Your task to perform on an android device: delete location history Image 0: 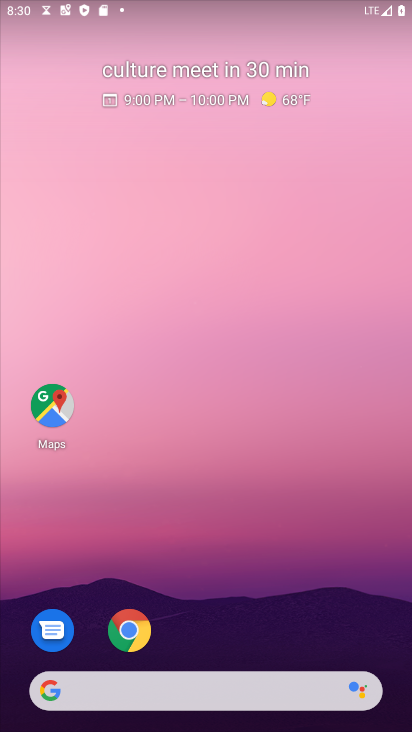
Step 0: click (52, 406)
Your task to perform on an android device: delete location history Image 1: 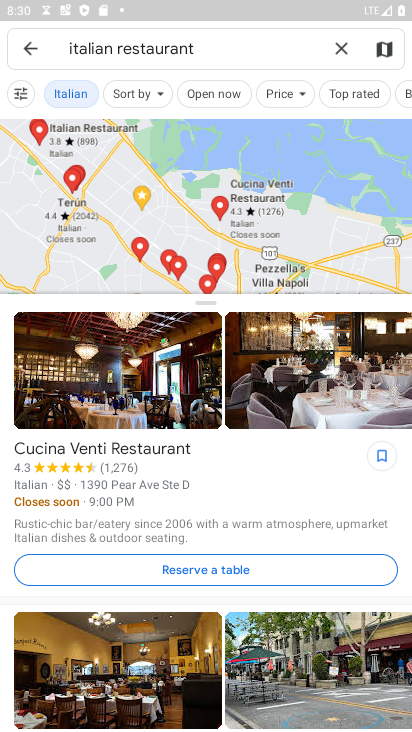
Step 1: click (338, 53)
Your task to perform on an android device: delete location history Image 2: 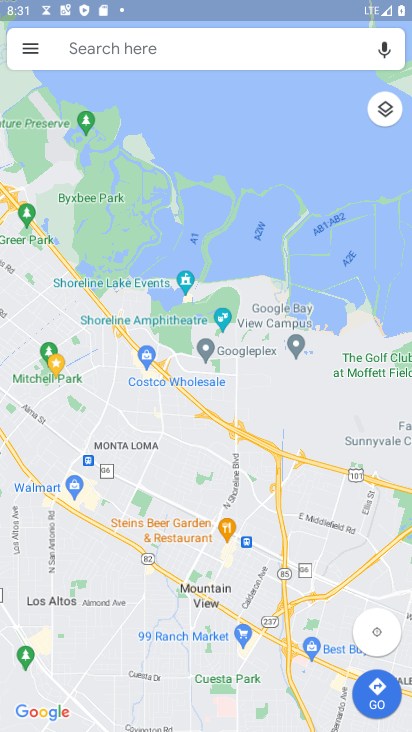
Step 2: click (29, 45)
Your task to perform on an android device: delete location history Image 3: 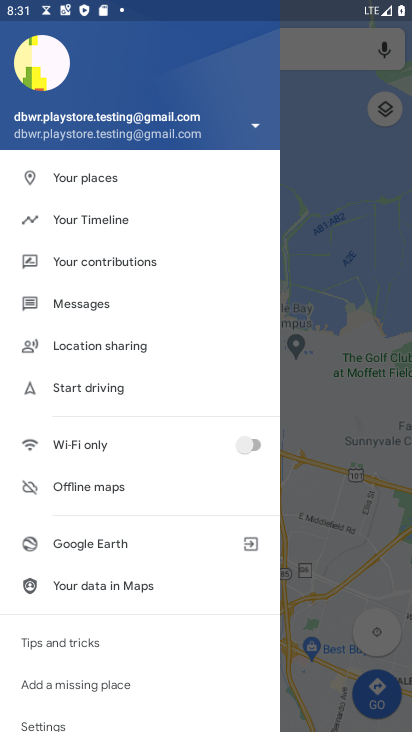
Step 3: drag from (81, 457) to (83, 339)
Your task to perform on an android device: delete location history Image 4: 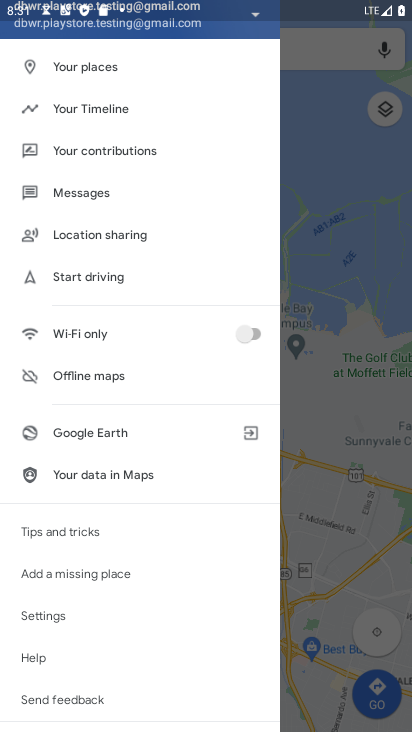
Step 4: click (55, 610)
Your task to perform on an android device: delete location history Image 5: 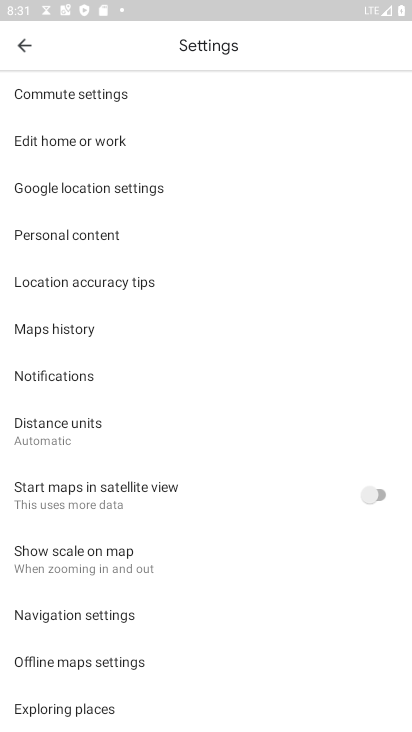
Step 5: click (94, 235)
Your task to perform on an android device: delete location history Image 6: 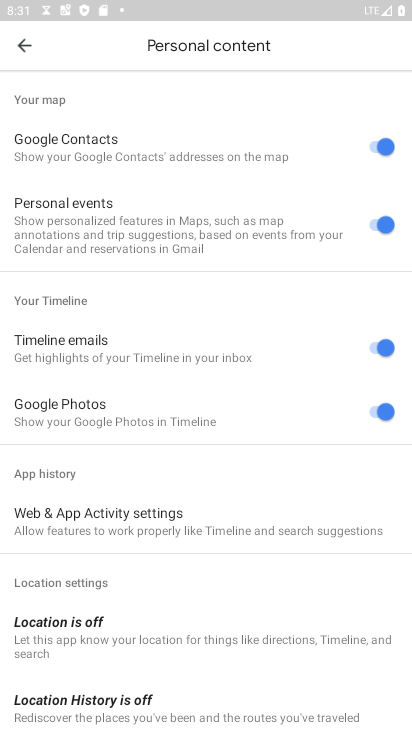
Step 6: drag from (104, 460) to (139, 282)
Your task to perform on an android device: delete location history Image 7: 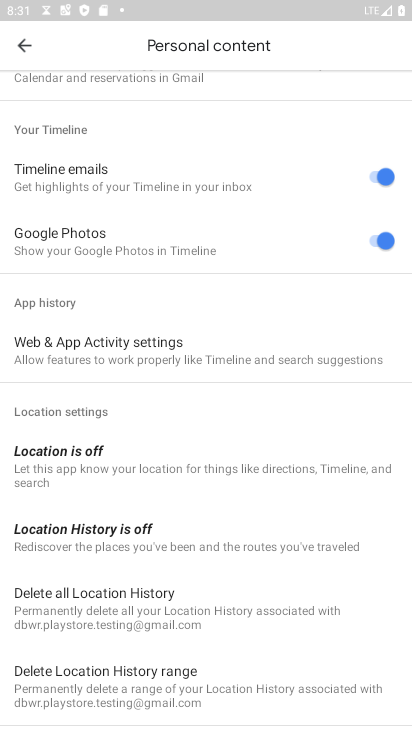
Step 7: drag from (103, 493) to (183, 244)
Your task to perform on an android device: delete location history Image 8: 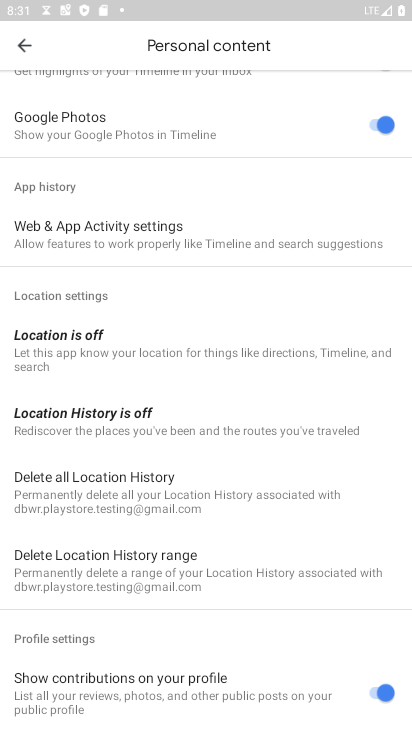
Step 8: click (101, 486)
Your task to perform on an android device: delete location history Image 9: 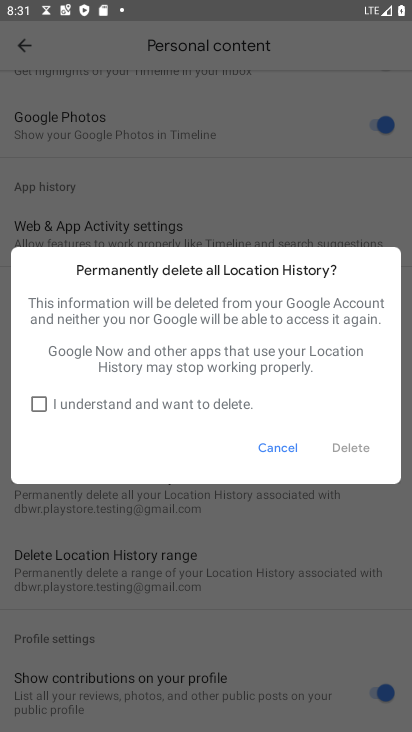
Step 9: click (36, 399)
Your task to perform on an android device: delete location history Image 10: 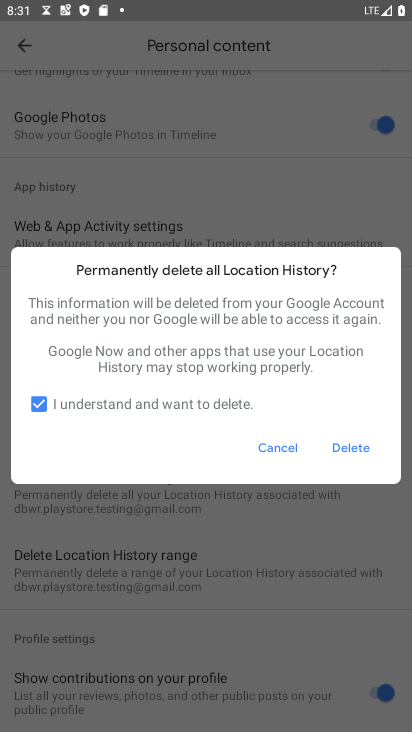
Step 10: click (120, 439)
Your task to perform on an android device: delete location history Image 11: 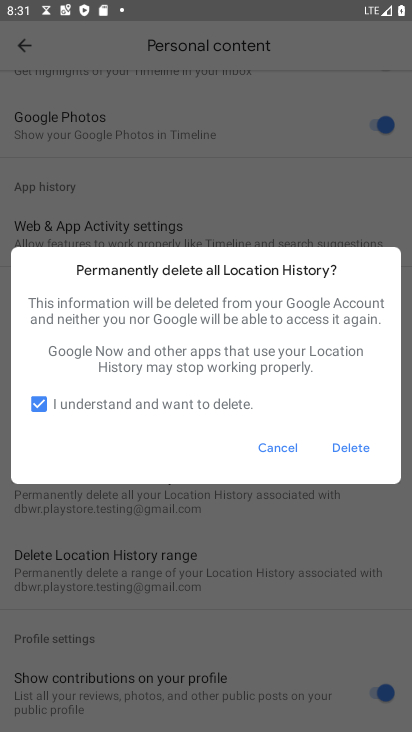
Step 11: click (349, 446)
Your task to perform on an android device: delete location history Image 12: 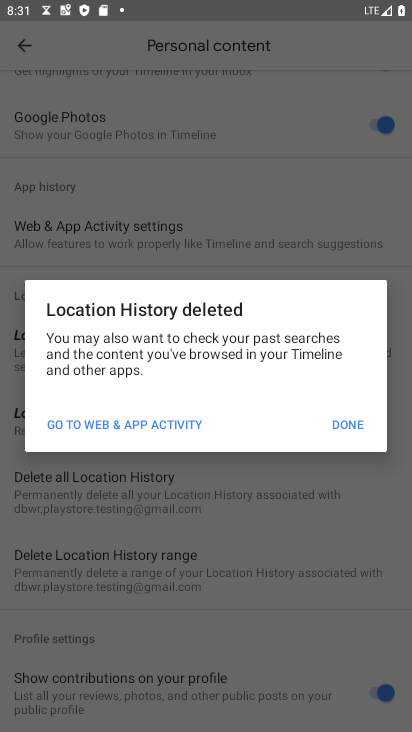
Step 12: click (336, 428)
Your task to perform on an android device: delete location history Image 13: 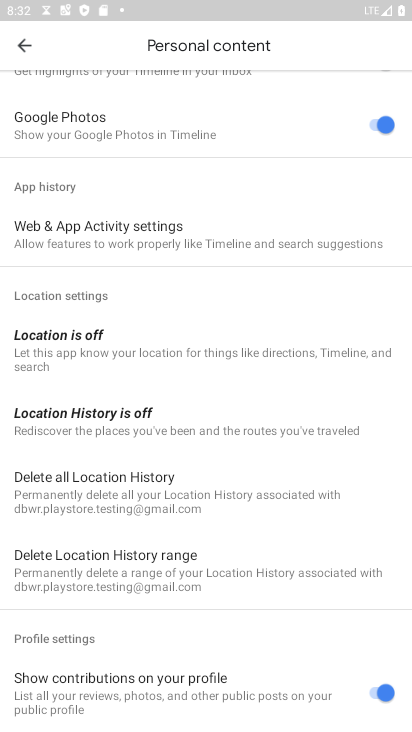
Step 13: task complete